Your task to perform on an android device: change the clock display to show seconds Image 0: 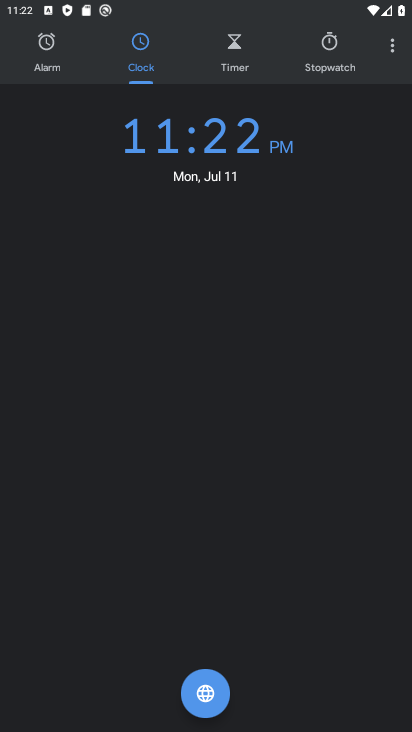
Step 0: press home button
Your task to perform on an android device: change the clock display to show seconds Image 1: 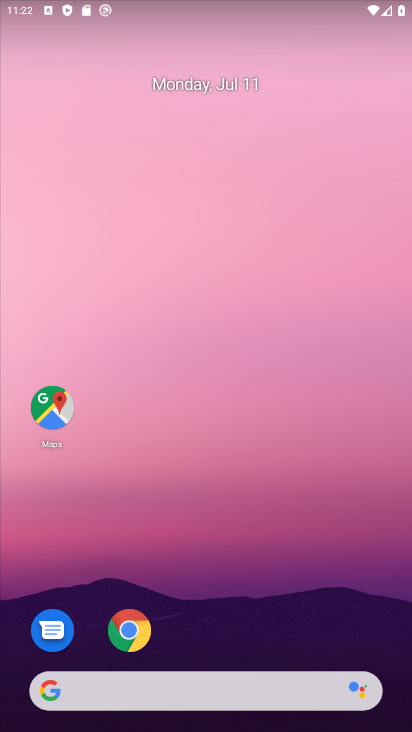
Step 1: drag from (356, 630) to (297, 185)
Your task to perform on an android device: change the clock display to show seconds Image 2: 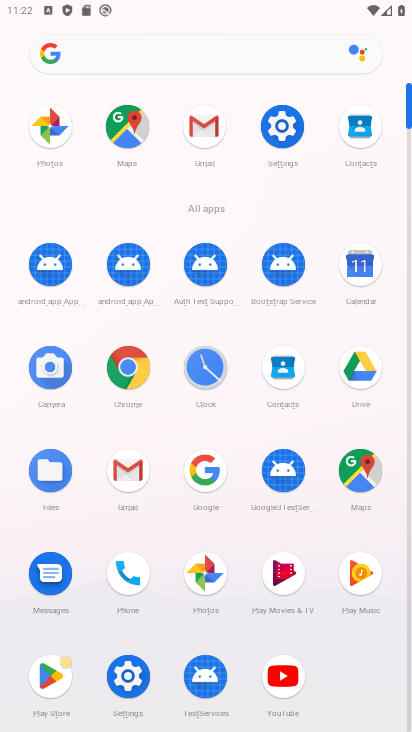
Step 2: click (205, 366)
Your task to perform on an android device: change the clock display to show seconds Image 3: 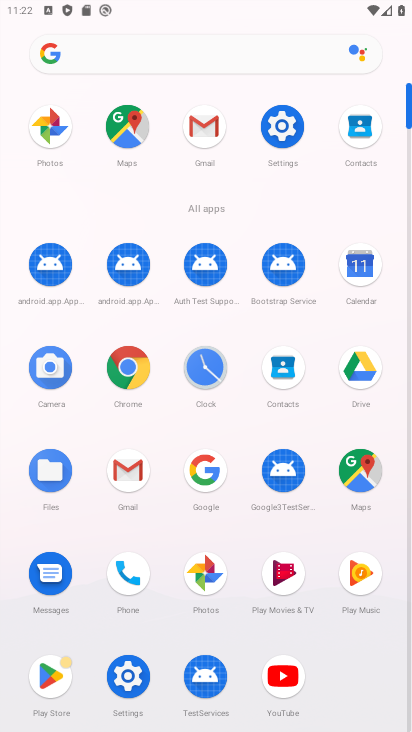
Step 3: click (203, 363)
Your task to perform on an android device: change the clock display to show seconds Image 4: 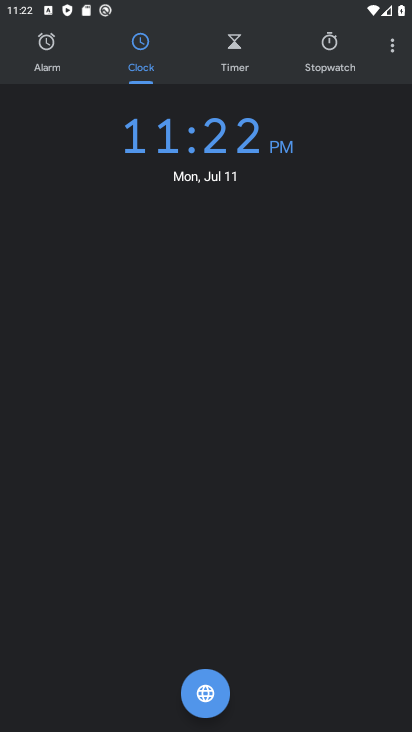
Step 4: click (392, 48)
Your task to perform on an android device: change the clock display to show seconds Image 5: 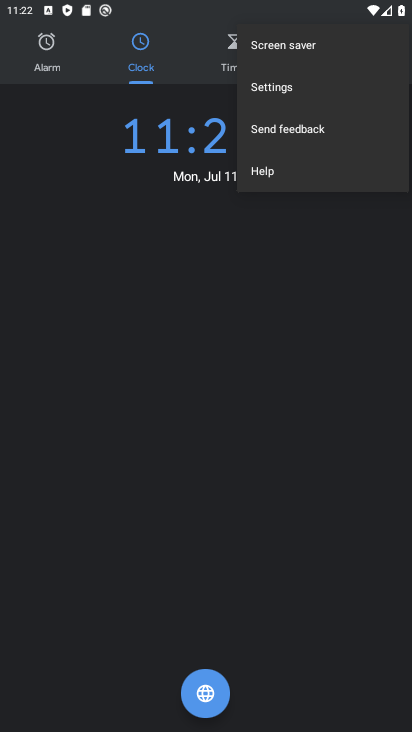
Step 5: click (268, 96)
Your task to perform on an android device: change the clock display to show seconds Image 6: 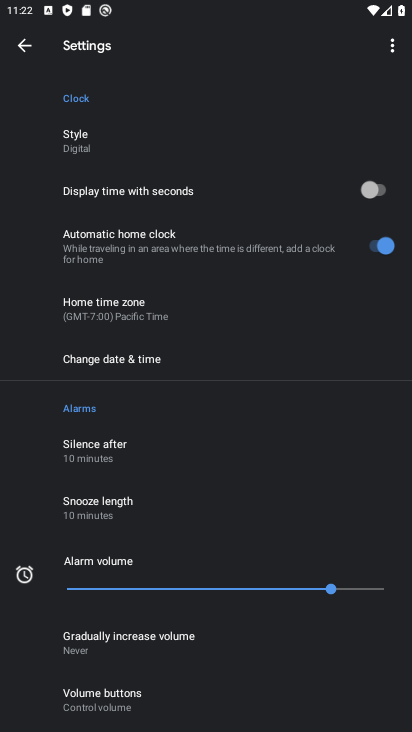
Step 6: click (378, 188)
Your task to perform on an android device: change the clock display to show seconds Image 7: 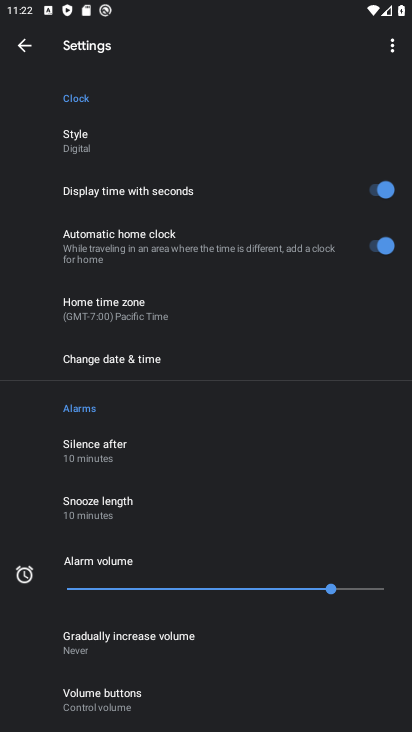
Step 7: task complete